Your task to perform on an android device: turn vacation reply on in the gmail app Image 0: 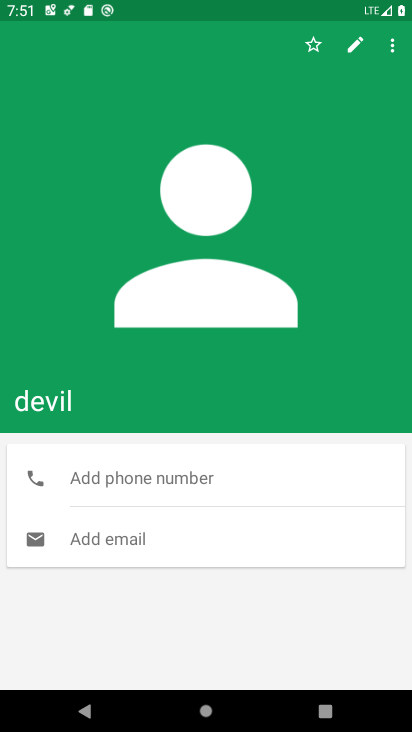
Step 0: press home button
Your task to perform on an android device: turn vacation reply on in the gmail app Image 1: 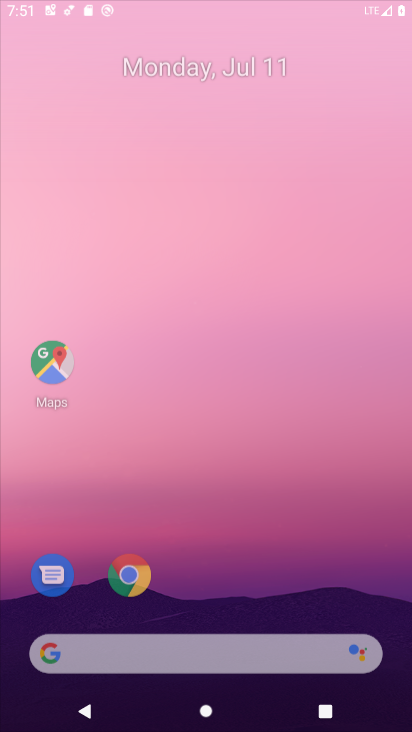
Step 1: drag from (384, 630) to (167, 1)
Your task to perform on an android device: turn vacation reply on in the gmail app Image 2: 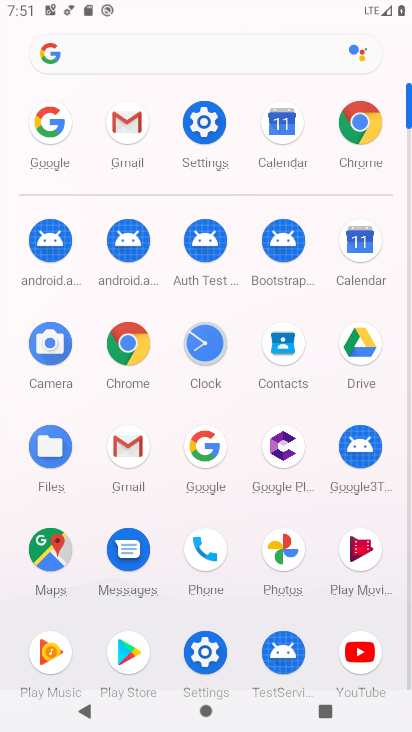
Step 2: click (109, 115)
Your task to perform on an android device: turn vacation reply on in the gmail app Image 3: 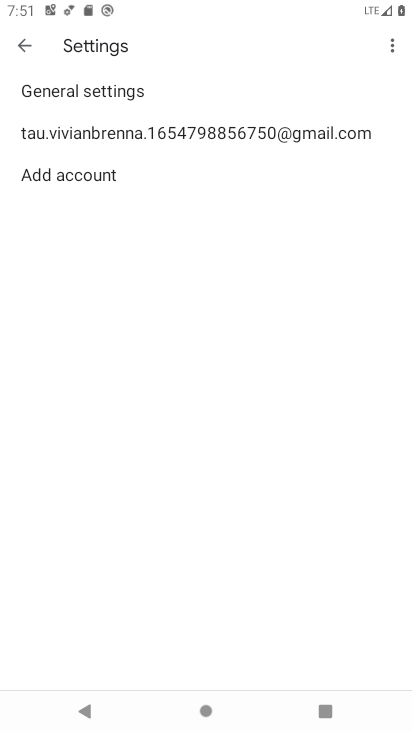
Step 3: click (113, 126)
Your task to perform on an android device: turn vacation reply on in the gmail app Image 4: 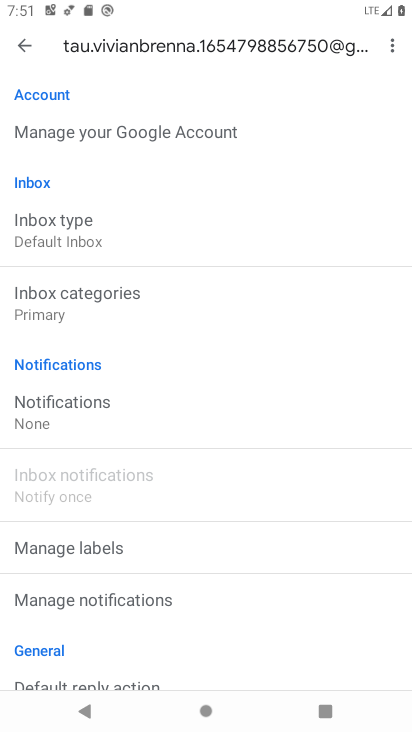
Step 4: drag from (58, 628) to (242, 75)
Your task to perform on an android device: turn vacation reply on in the gmail app Image 5: 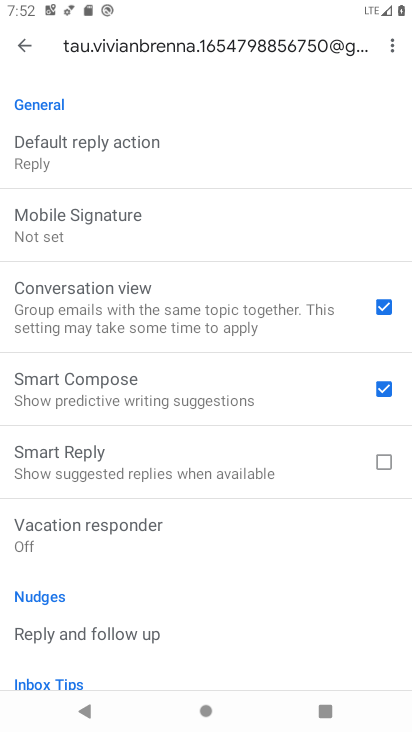
Step 5: drag from (114, 617) to (124, 342)
Your task to perform on an android device: turn vacation reply on in the gmail app Image 6: 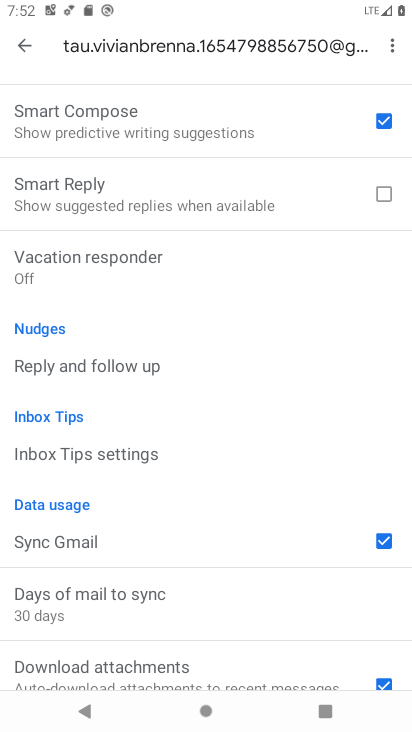
Step 6: click (154, 254)
Your task to perform on an android device: turn vacation reply on in the gmail app Image 7: 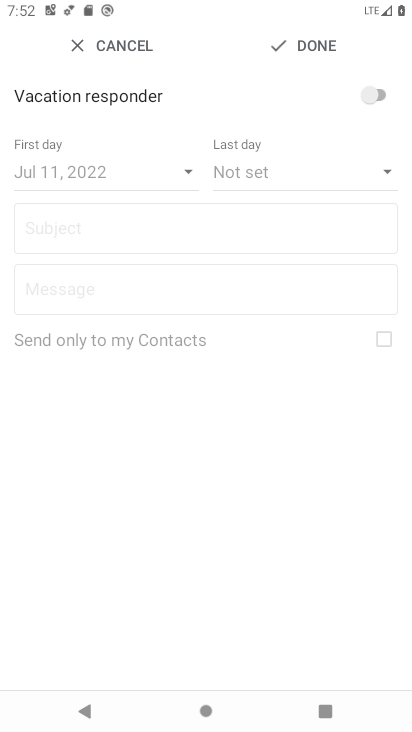
Step 7: click (368, 94)
Your task to perform on an android device: turn vacation reply on in the gmail app Image 8: 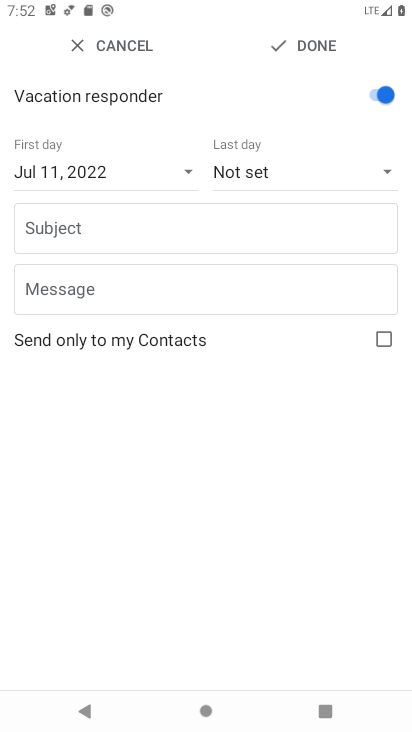
Step 8: task complete